Your task to perform on an android device: turn on the 12-hour format for clock Image 0: 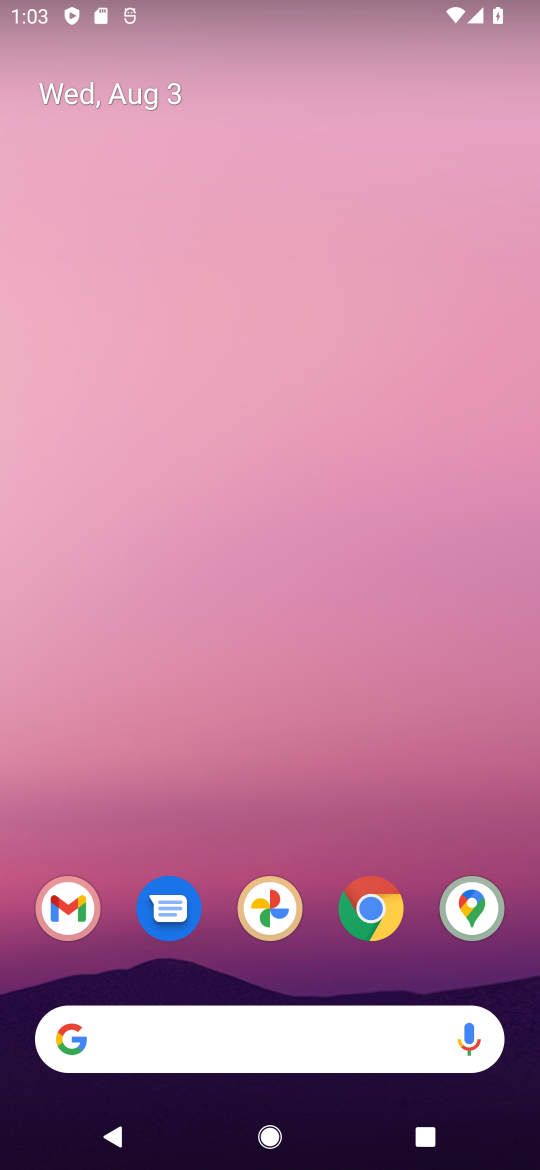
Step 0: drag from (242, 956) to (380, 27)
Your task to perform on an android device: turn on the 12-hour format for clock Image 1: 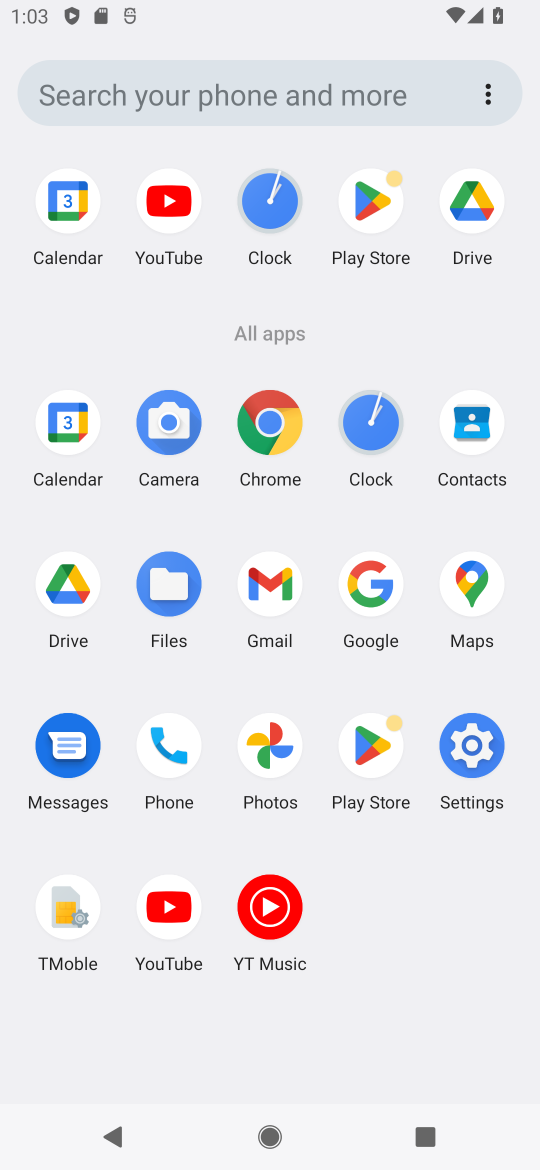
Step 1: click (369, 448)
Your task to perform on an android device: turn on the 12-hour format for clock Image 2: 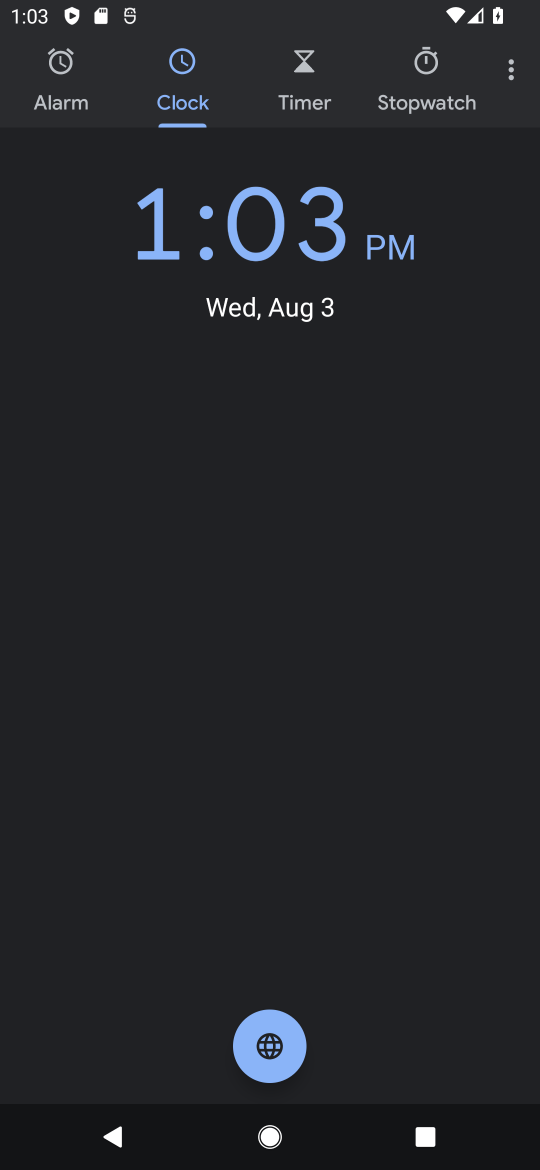
Step 2: click (511, 79)
Your task to perform on an android device: turn on the 12-hour format for clock Image 3: 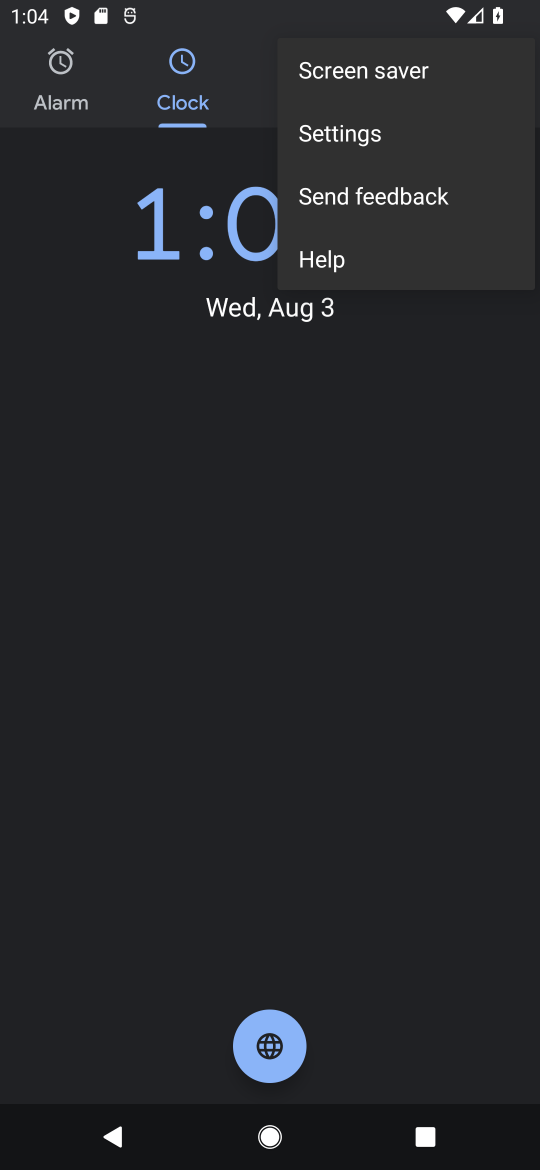
Step 3: click (372, 131)
Your task to perform on an android device: turn on the 12-hour format for clock Image 4: 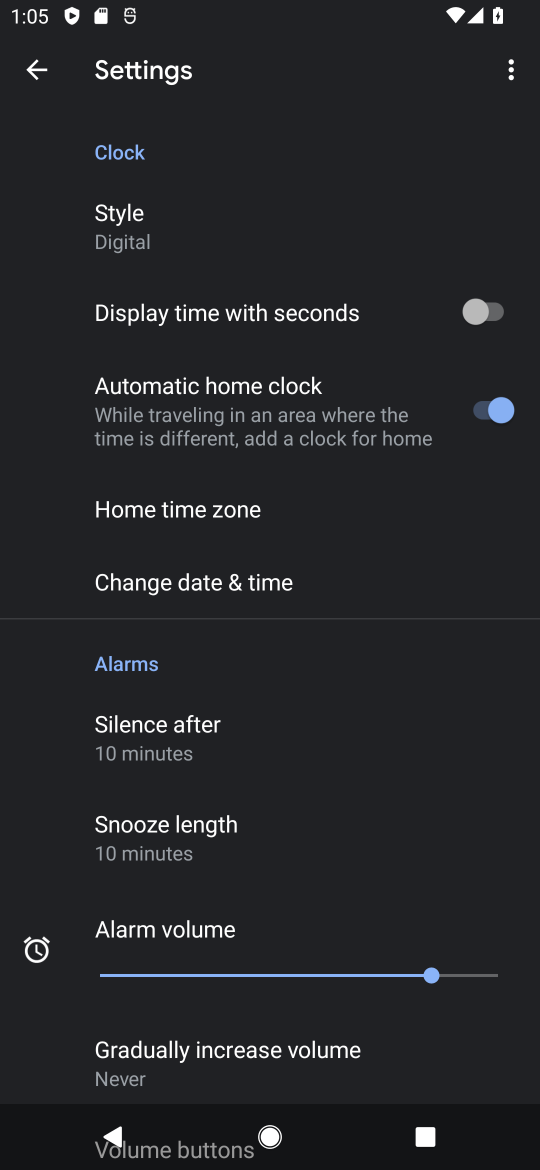
Step 4: click (264, 585)
Your task to perform on an android device: turn on the 12-hour format for clock Image 5: 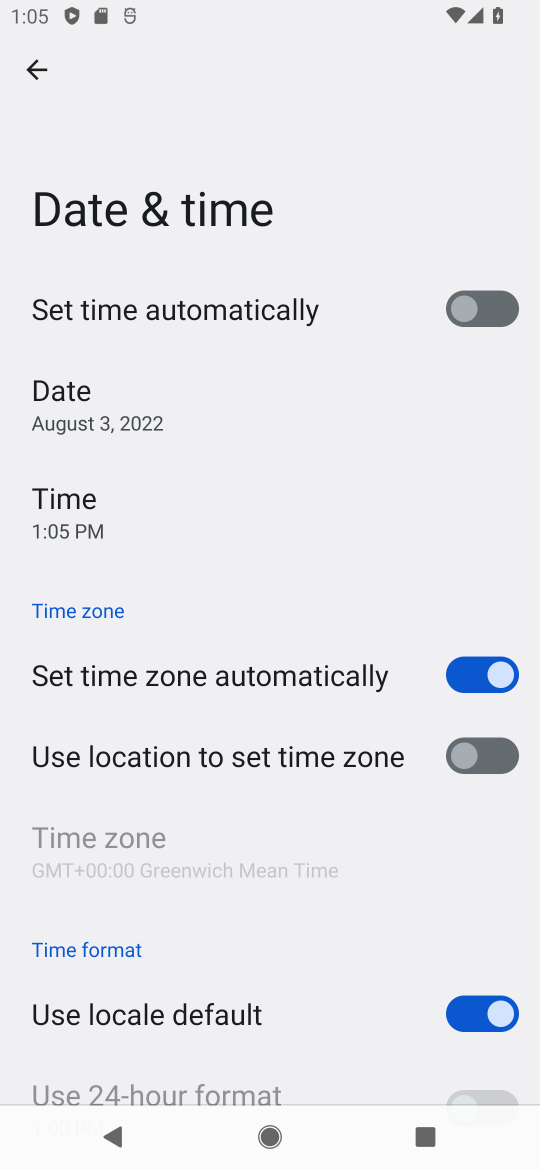
Step 5: task complete